Your task to perform on an android device: Go to wifi settings Image 0: 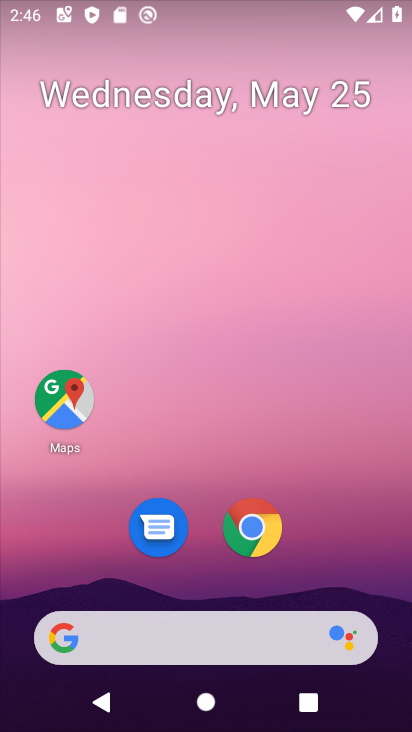
Step 0: drag from (128, 13) to (220, 537)
Your task to perform on an android device: Go to wifi settings Image 1: 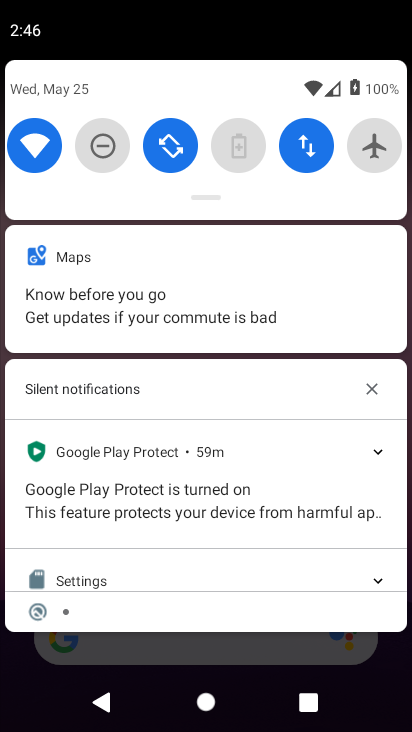
Step 1: click (37, 144)
Your task to perform on an android device: Go to wifi settings Image 2: 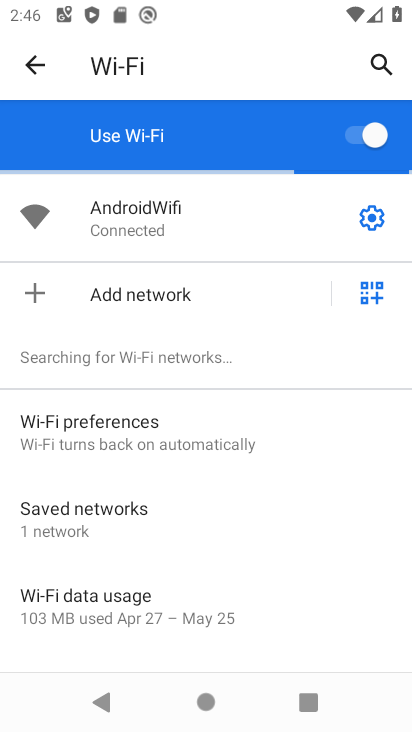
Step 2: task complete